Your task to perform on an android device: Go to ESPN.com Image 0: 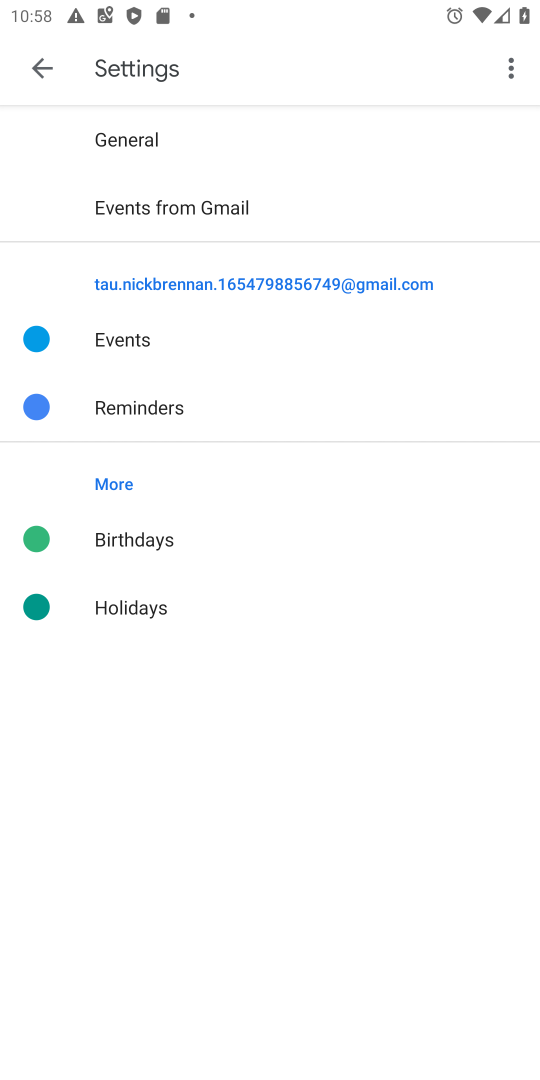
Step 0: press home button
Your task to perform on an android device: Go to ESPN.com Image 1: 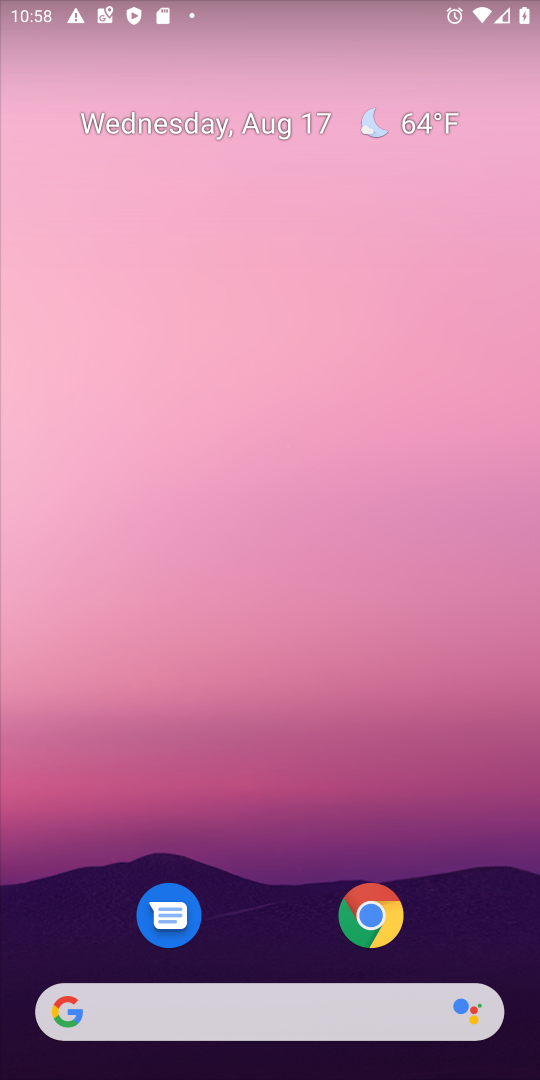
Step 1: click (366, 913)
Your task to perform on an android device: Go to ESPN.com Image 2: 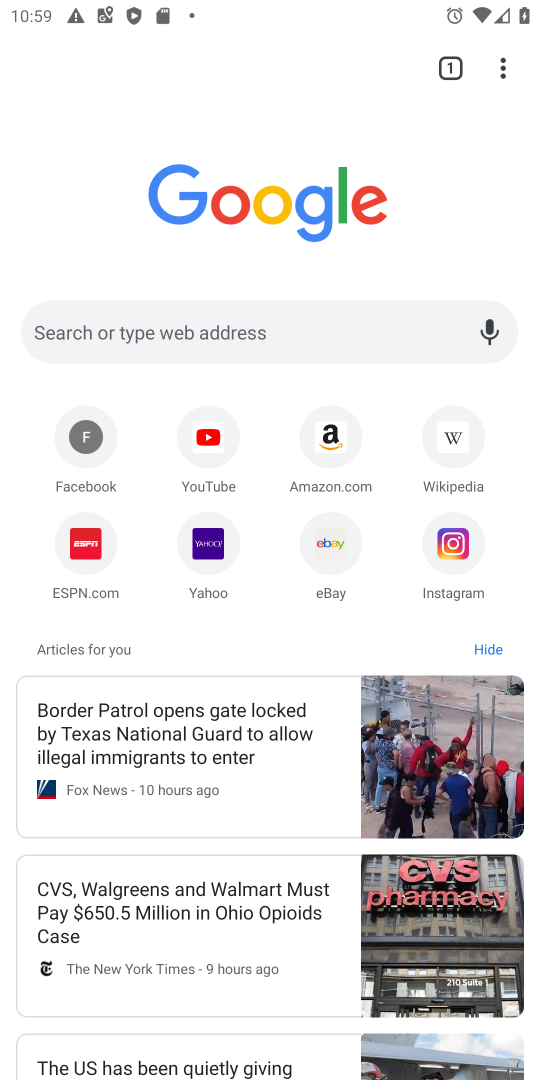
Step 2: click (82, 550)
Your task to perform on an android device: Go to ESPN.com Image 3: 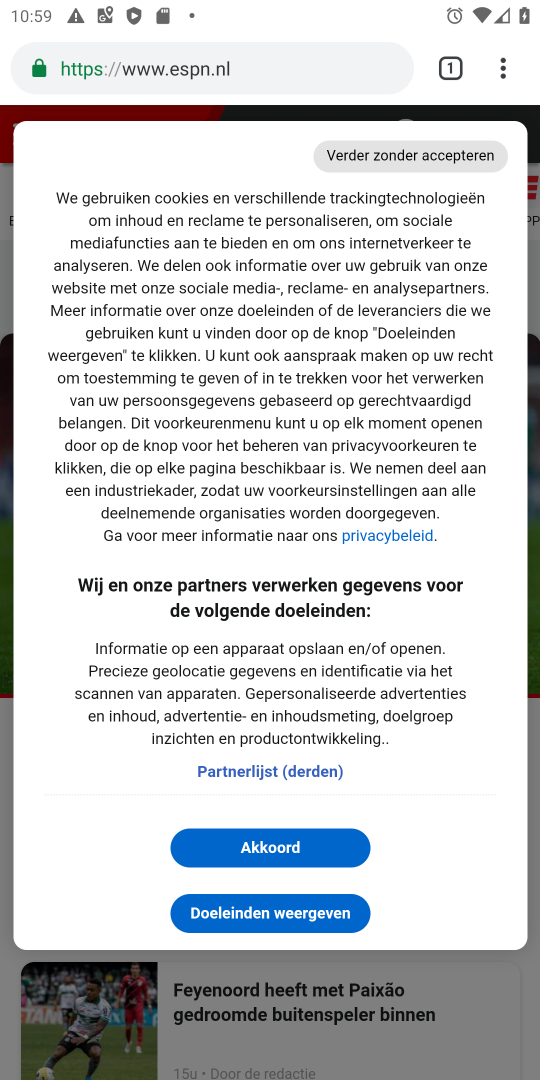
Step 3: click (263, 847)
Your task to perform on an android device: Go to ESPN.com Image 4: 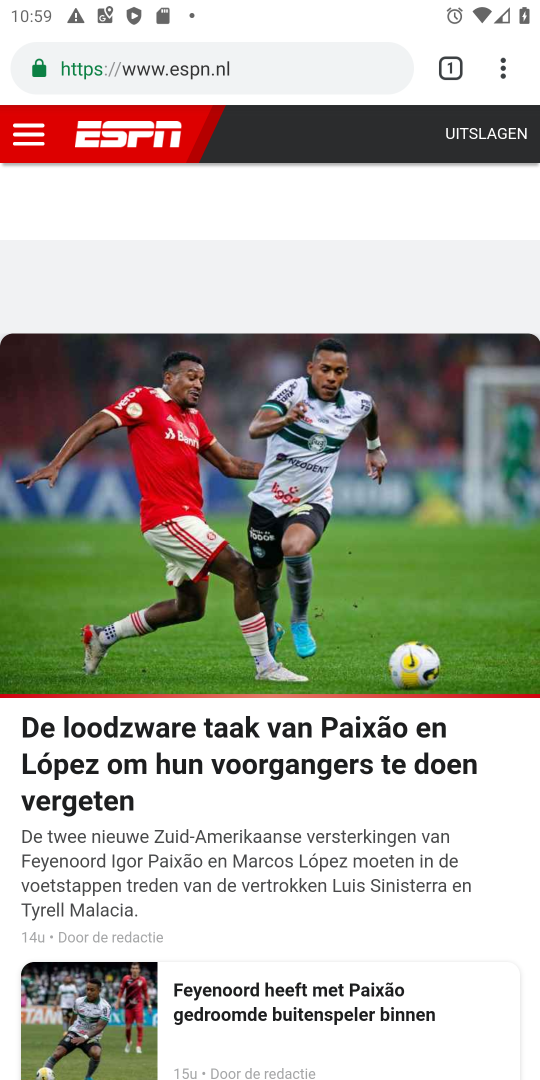
Step 4: task complete